Your task to perform on an android device: Open Google Maps and go to "Timeline" Image 0: 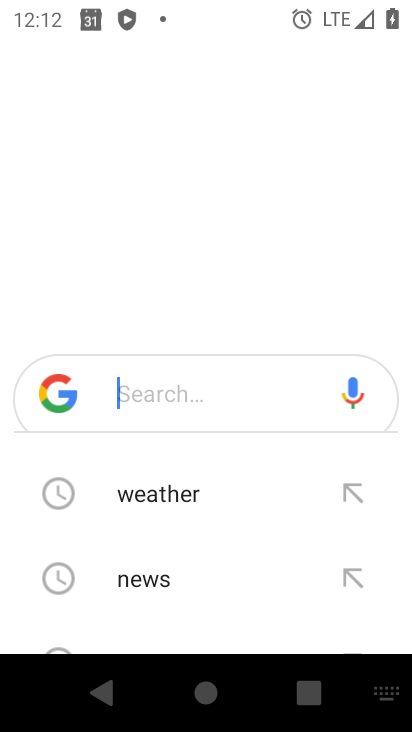
Step 0: press back button
Your task to perform on an android device: Open Google Maps and go to "Timeline" Image 1: 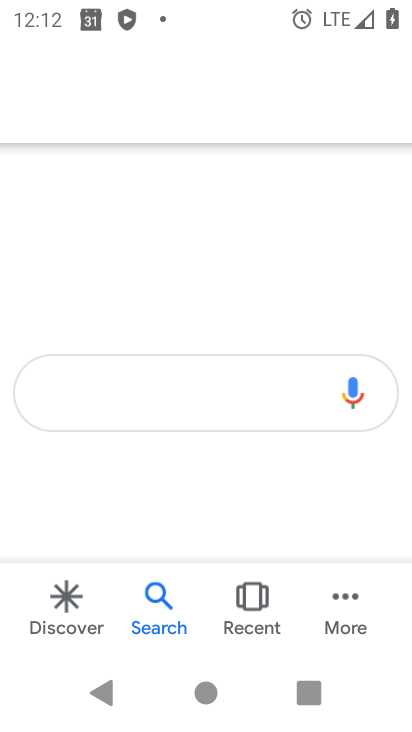
Step 1: press home button
Your task to perform on an android device: Open Google Maps and go to "Timeline" Image 2: 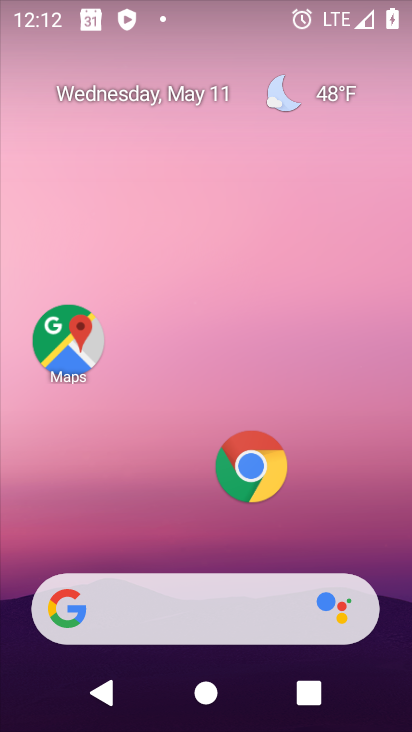
Step 2: click (71, 340)
Your task to perform on an android device: Open Google Maps and go to "Timeline" Image 3: 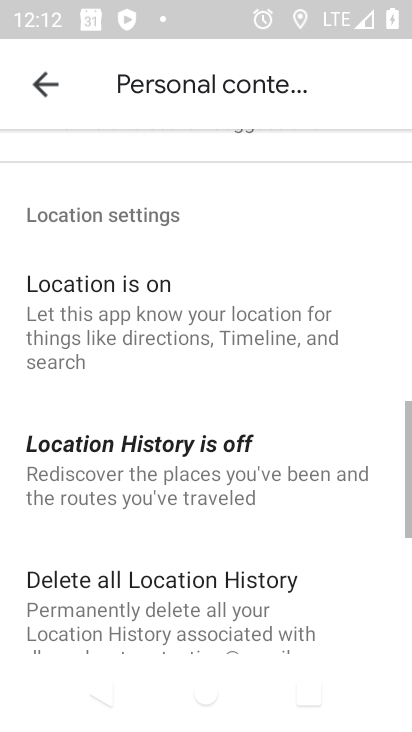
Step 3: click (52, 71)
Your task to perform on an android device: Open Google Maps and go to "Timeline" Image 4: 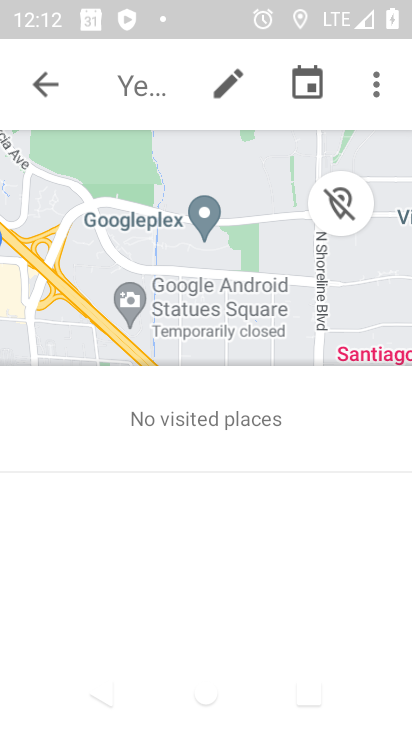
Step 4: click (368, 83)
Your task to perform on an android device: Open Google Maps and go to "Timeline" Image 5: 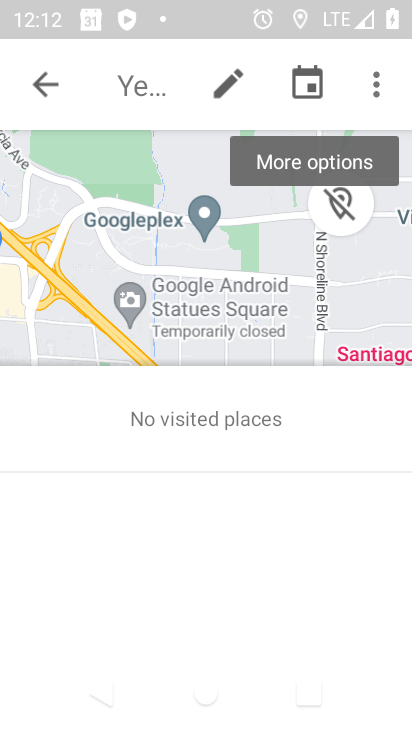
Step 5: task complete